Your task to perform on an android device: Open ESPN.com Image 0: 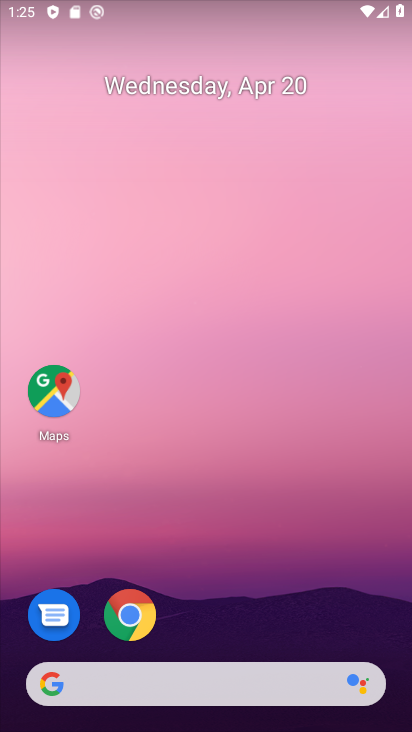
Step 0: click (136, 603)
Your task to perform on an android device: Open ESPN.com Image 1: 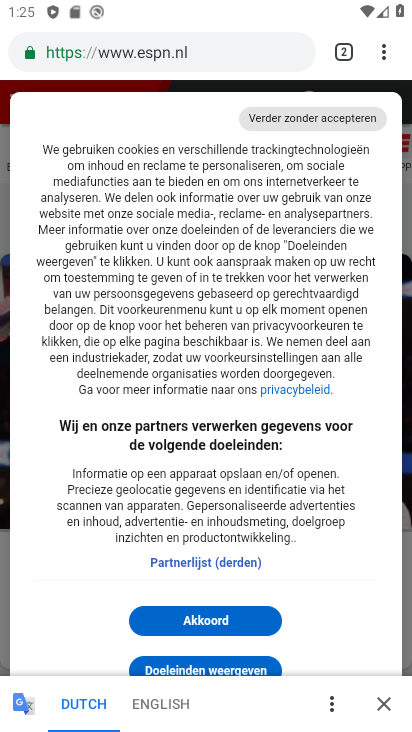
Step 1: task complete